Your task to perform on an android device: Open the stopwatch Image 0: 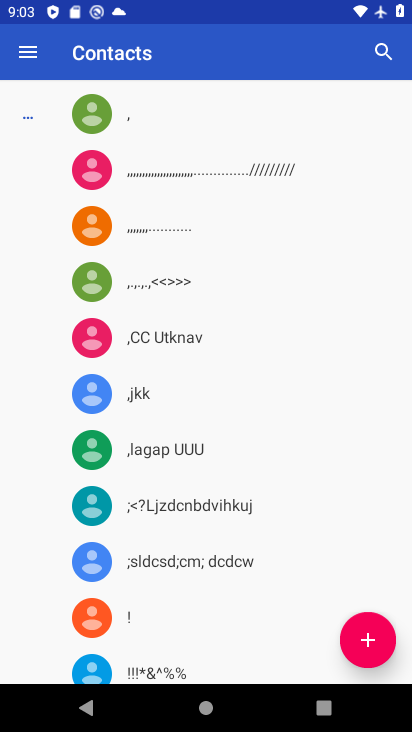
Step 0: press home button
Your task to perform on an android device: Open the stopwatch Image 1: 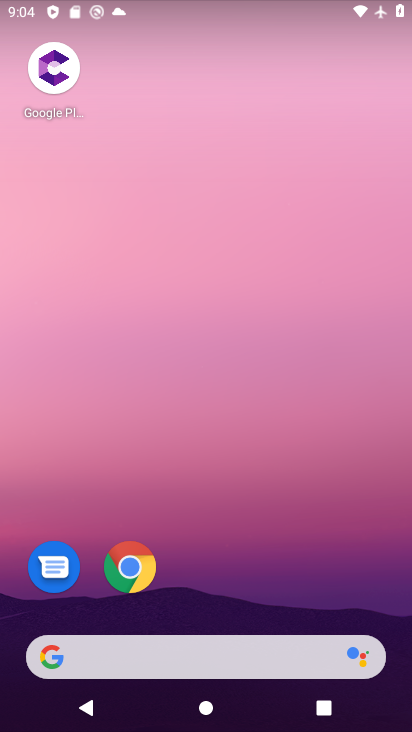
Step 1: drag from (362, 596) to (310, 153)
Your task to perform on an android device: Open the stopwatch Image 2: 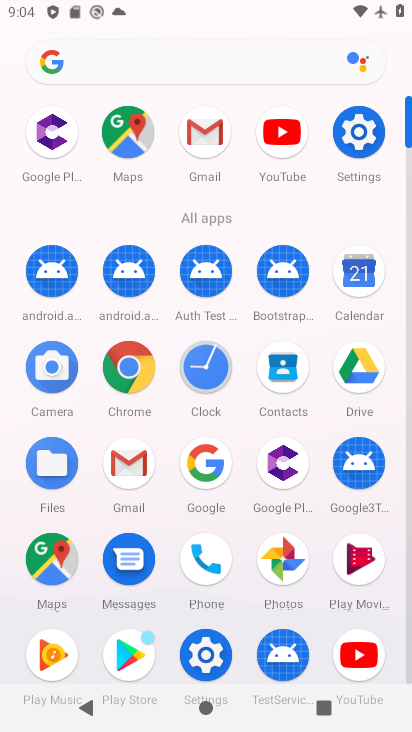
Step 2: click (410, 664)
Your task to perform on an android device: Open the stopwatch Image 3: 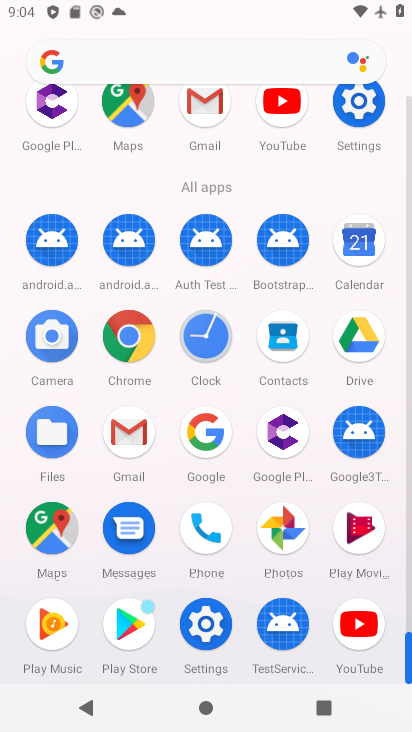
Step 3: click (207, 332)
Your task to perform on an android device: Open the stopwatch Image 4: 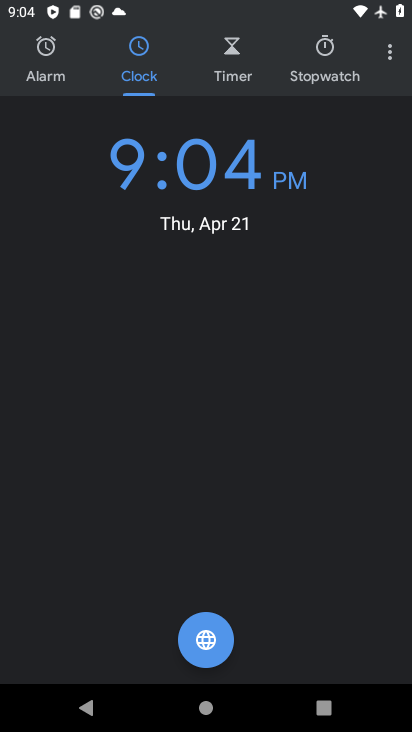
Step 4: click (324, 55)
Your task to perform on an android device: Open the stopwatch Image 5: 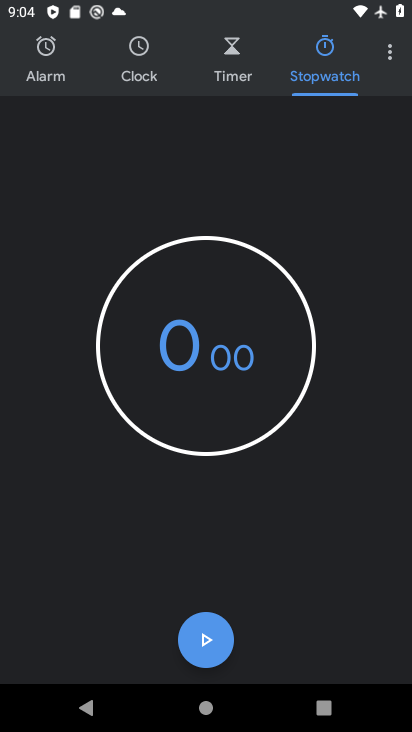
Step 5: task complete